Your task to perform on an android device: Go to wifi settings Image 0: 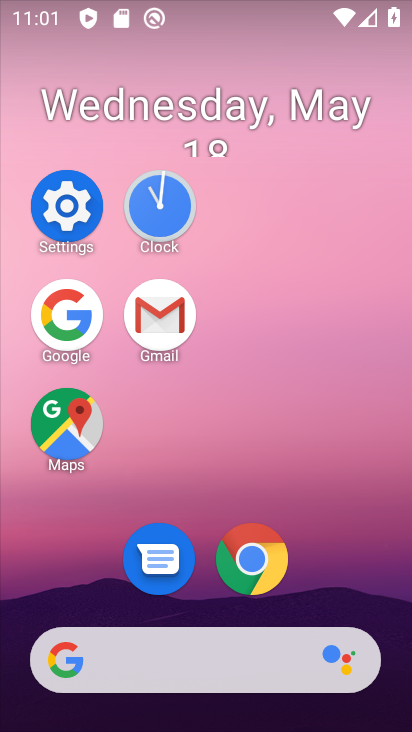
Step 0: click (77, 220)
Your task to perform on an android device: Go to wifi settings Image 1: 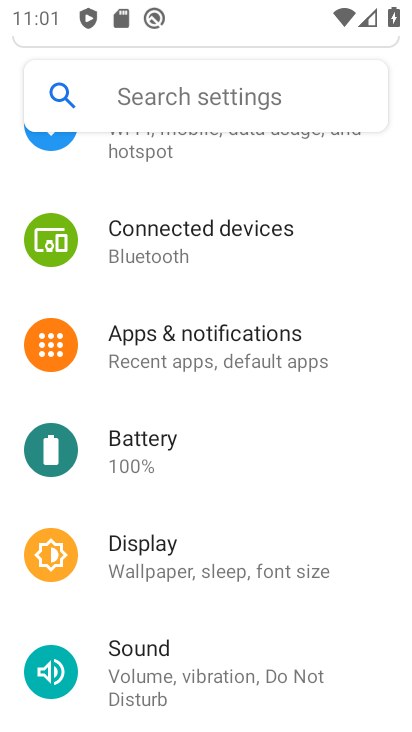
Step 1: click (170, 148)
Your task to perform on an android device: Go to wifi settings Image 2: 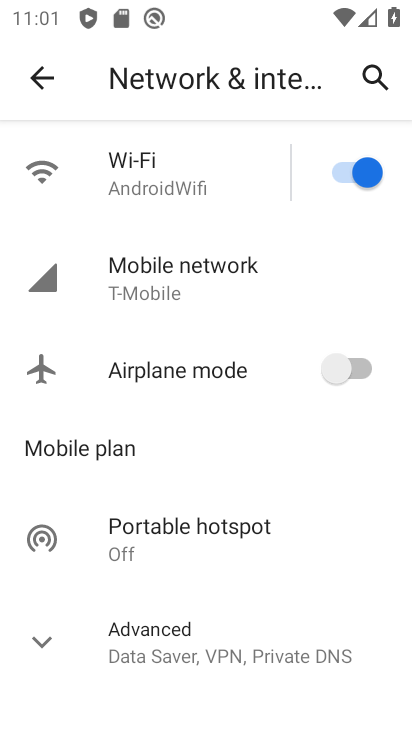
Step 2: click (182, 160)
Your task to perform on an android device: Go to wifi settings Image 3: 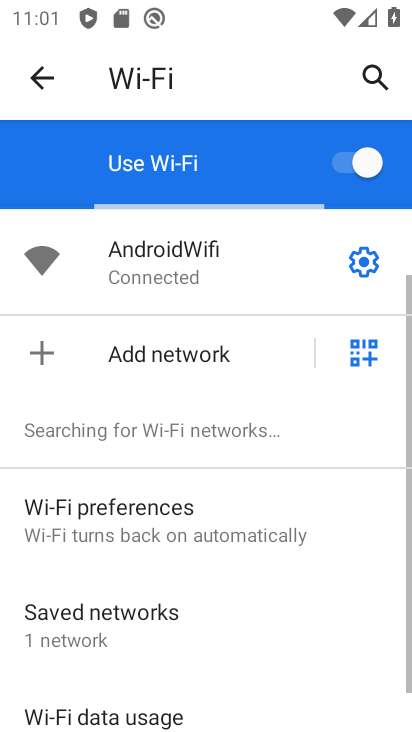
Step 3: click (366, 253)
Your task to perform on an android device: Go to wifi settings Image 4: 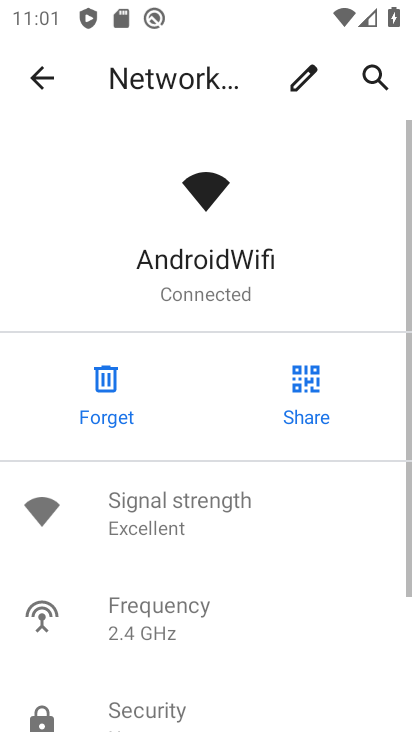
Step 4: task complete